Your task to perform on an android device: Open the calendar app, open the side menu, and click the "Day" option Image 0: 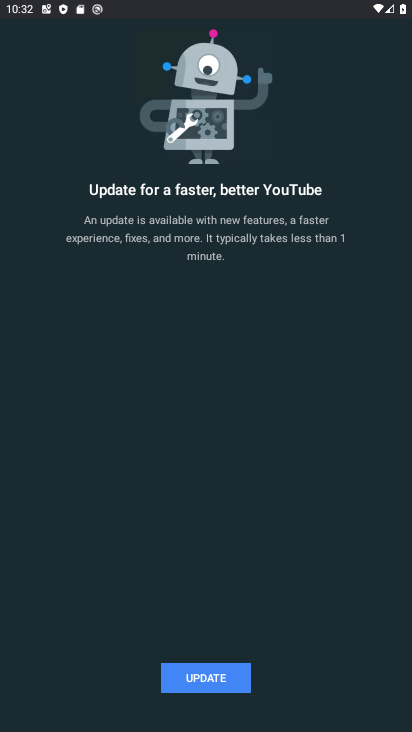
Step 0: press back button
Your task to perform on an android device: Open the calendar app, open the side menu, and click the "Day" option Image 1: 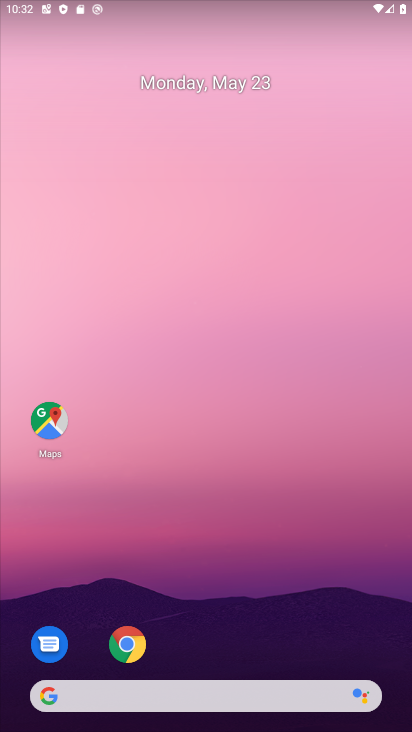
Step 1: drag from (298, 714) to (162, 134)
Your task to perform on an android device: Open the calendar app, open the side menu, and click the "Day" option Image 2: 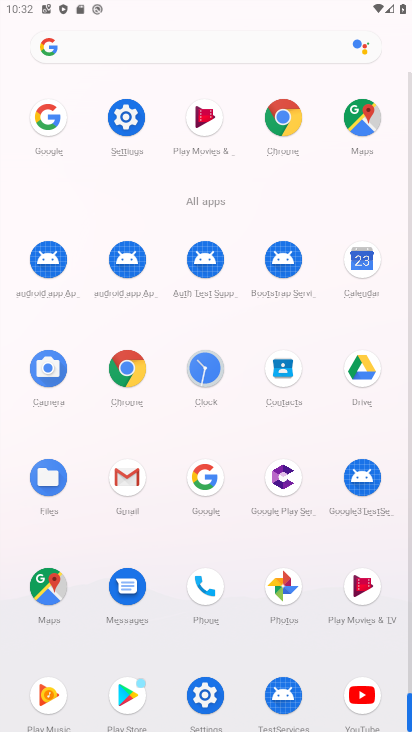
Step 2: click (355, 273)
Your task to perform on an android device: Open the calendar app, open the side menu, and click the "Day" option Image 3: 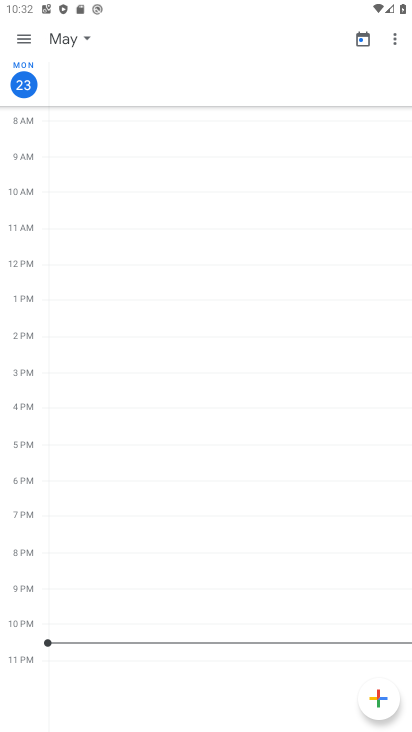
Step 3: click (25, 45)
Your task to perform on an android device: Open the calendar app, open the side menu, and click the "Day" option Image 4: 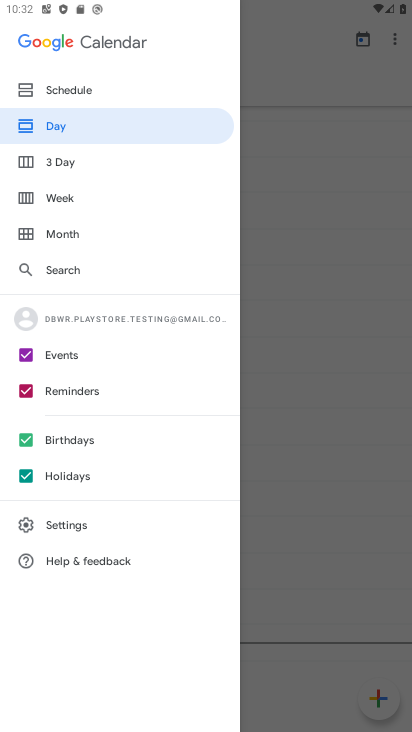
Step 4: click (66, 127)
Your task to perform on an android device: Open the calendar app, open the side menu, and click the "Day" option Image 5: 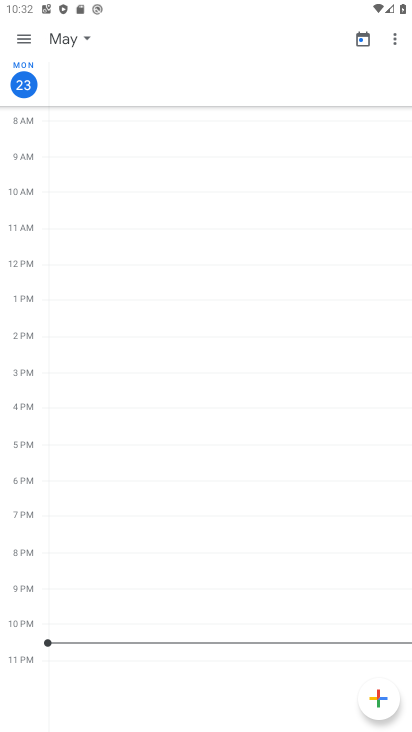
Step 5: task complete